Your task to perform on an android device: Show me productivity apps on the Play Store Image 0: 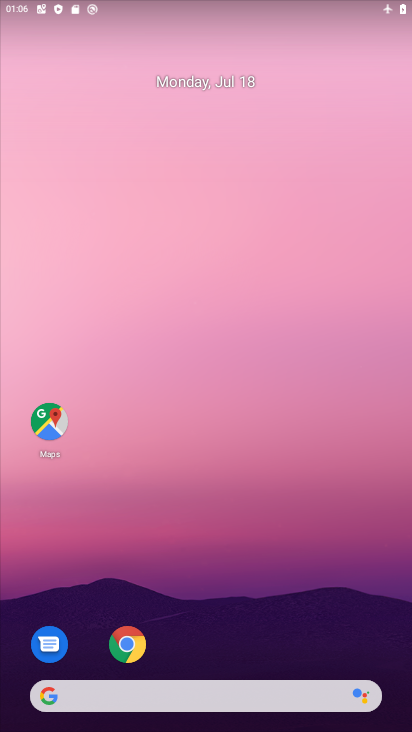
Step 0: press home button
Your task to perform on an android device: Show me productivity apps on the Play Store Image 1: 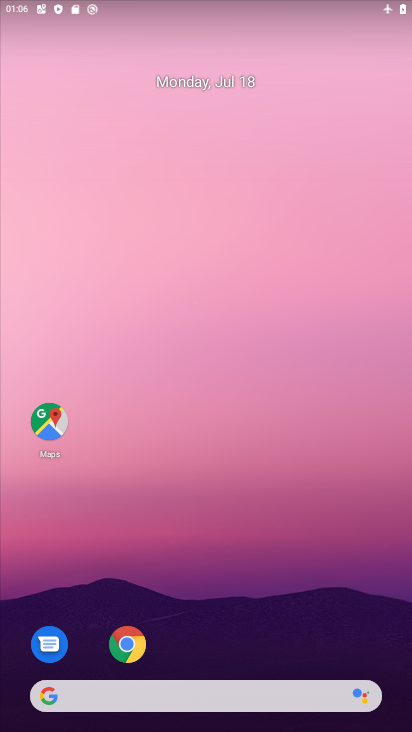
Step 1: drag from (361, 94) to (197, 28)
Your task to perform on an android device: Show me productivity apps on the Play Store Image 2: 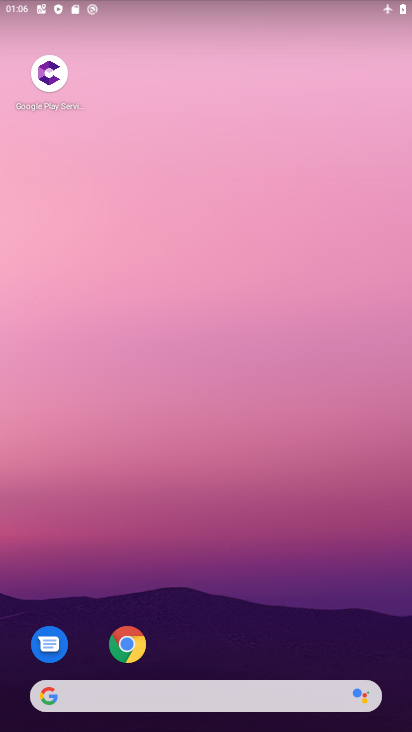
Step 2: drag from (280, 660) to (295, 18)
Your task to perform on an android device: Show me productivity apps on the Play Store Image 3: 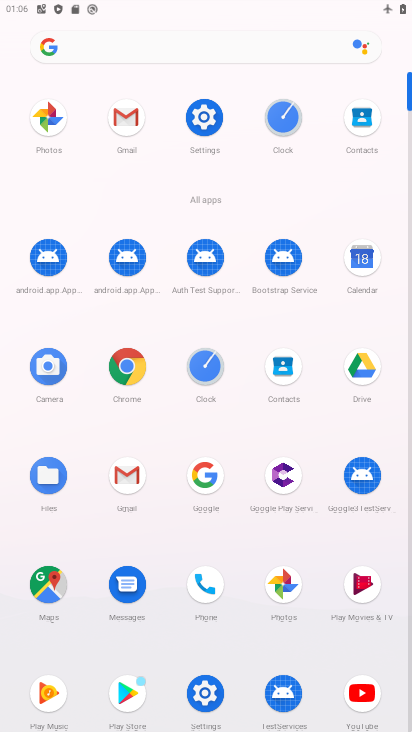
Step 3: drag from (404, 2) to (319, 655)
Your task to perform on an android device: Show me productivity apps on the Play Store Image 4: 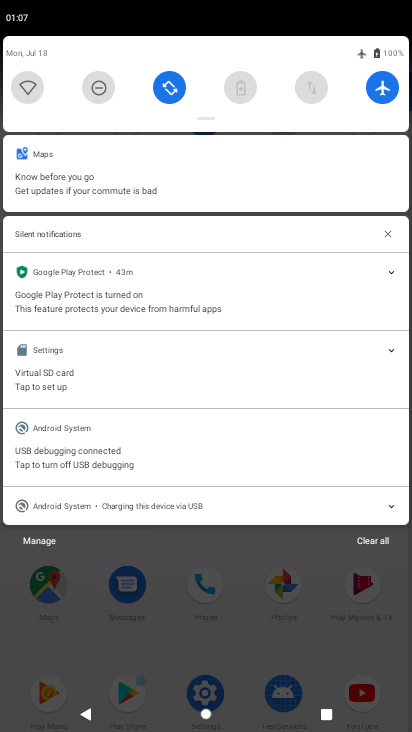
Step 4: click (384, 85)
Your task to perform on an android device: Show me productivity apps on the Play Store Image 5: 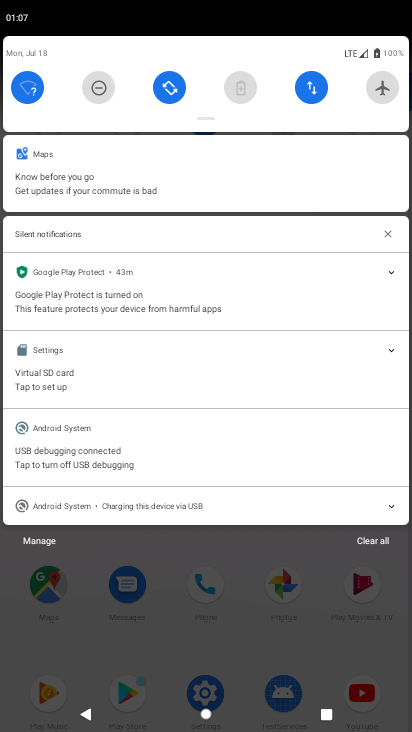
Step 5: drag from (124, 610) to (130, 229)
Your task to perform on an android device: Show me productivity apps on the Play Store Image 6: 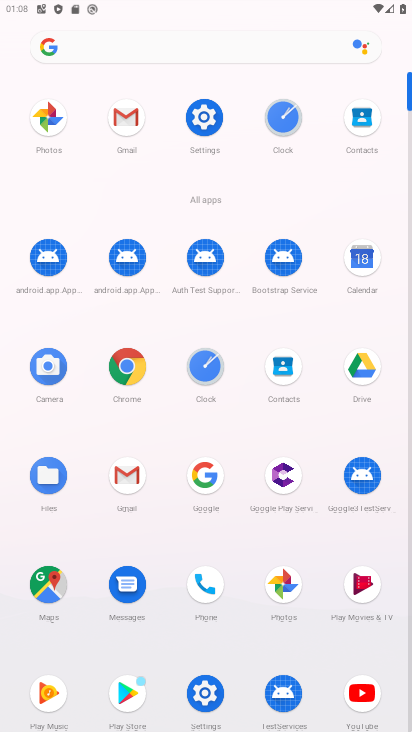
Step 6: click (147, 704)
Your task to perform on an android device: Show me productivity apps on the Play Store Image 7: 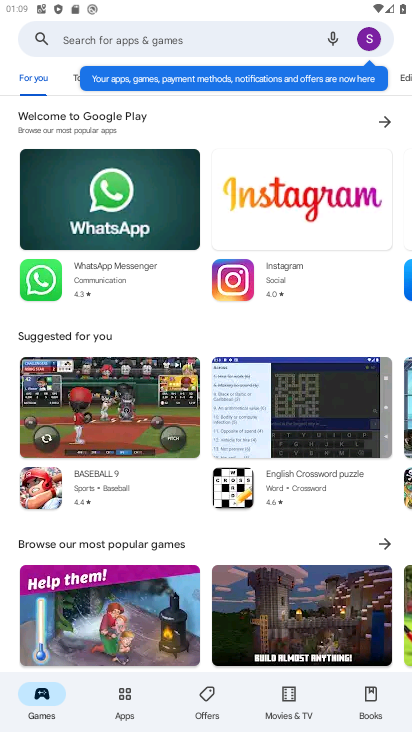
Step 7: click (173, 37)
Your task to perform on an android device: Show me productivity apps on the Play Store Image 8: 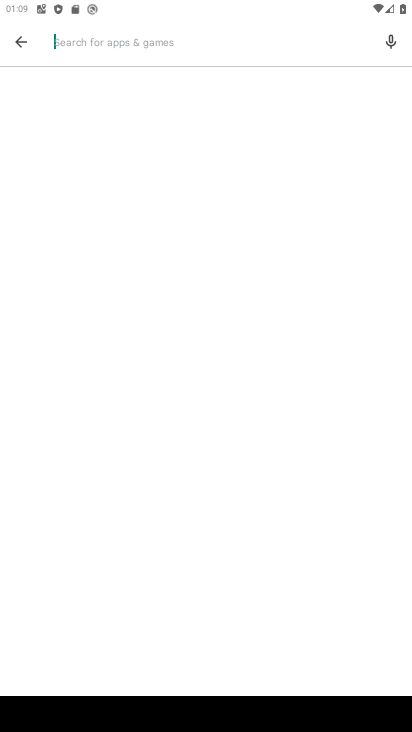
Step 8: type " productivity apps"
Your task to perform on an android device: Show me productivity apps on the Play Store Image 9: 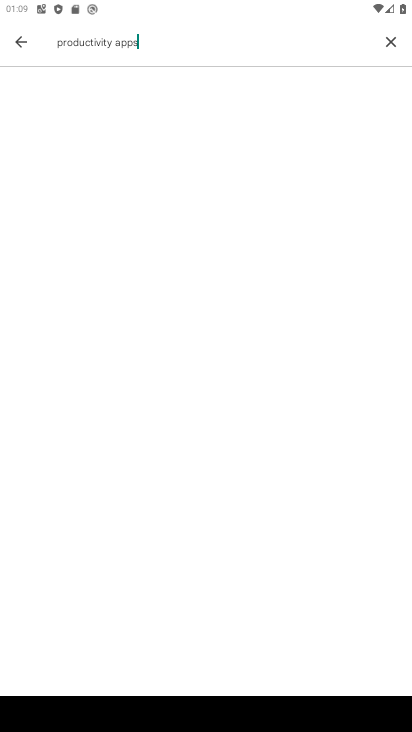
Step 9: type ""
Your task to perform on an android device: Show me productivity apps on the Play Store Image 10: 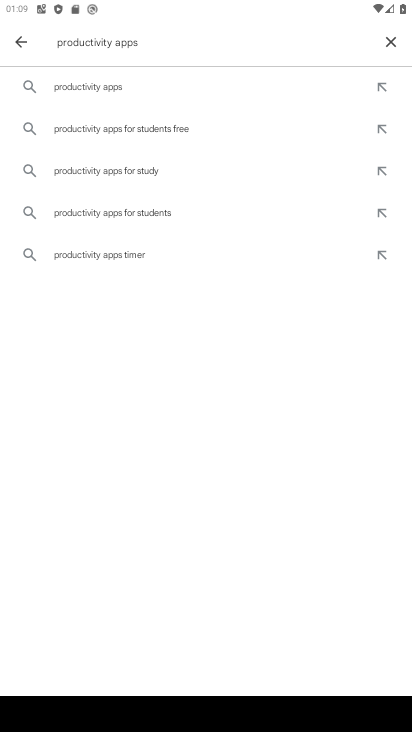
Step 10: click (66, 86)
Your task to perform on an android device: Show me productivity apps on the Play Store Image 11: 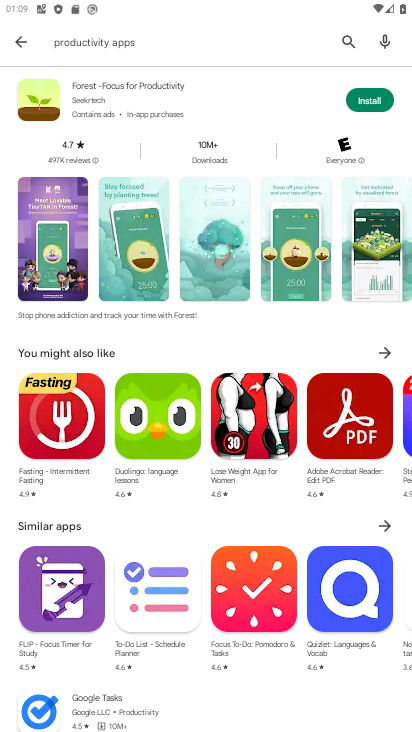
Step 11: task complete